Your task to perform on an android device: What's the weather going to be tomorrow? Image 0: 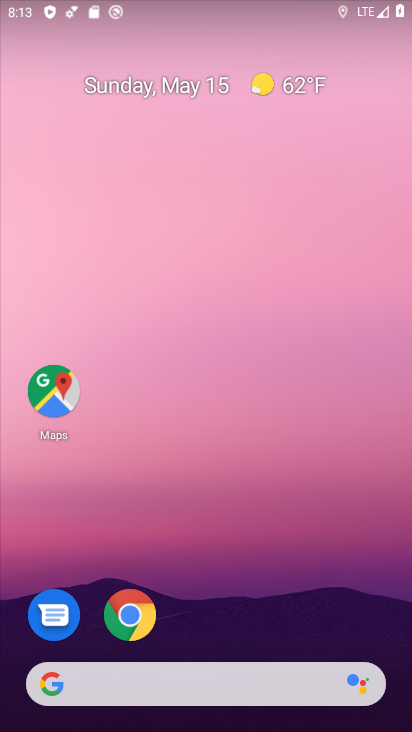
Step 0: click (217, 684)
Your task to perform on an android device: What's the weather going to be tomorrow? Image 1: 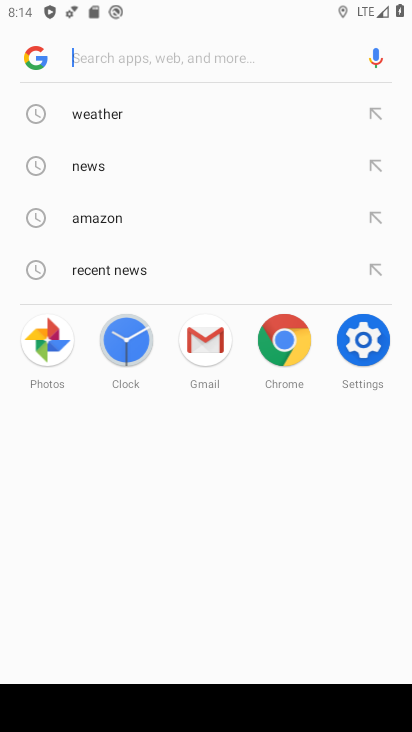
Step 1: type "What's the weather going to be tomorrow?"
Your task to perform on an android device: What's the weather going to be tomorrow? Image 2: 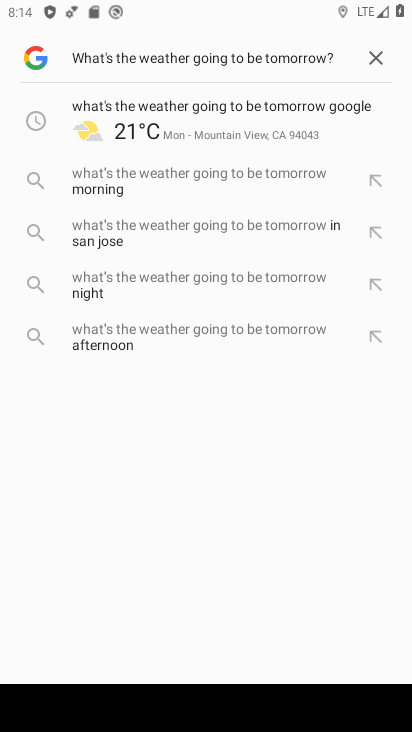
Step 2: click (278, 152)
Your task to perform on an android device: What's the weather going to be tomorrow? Image 3: 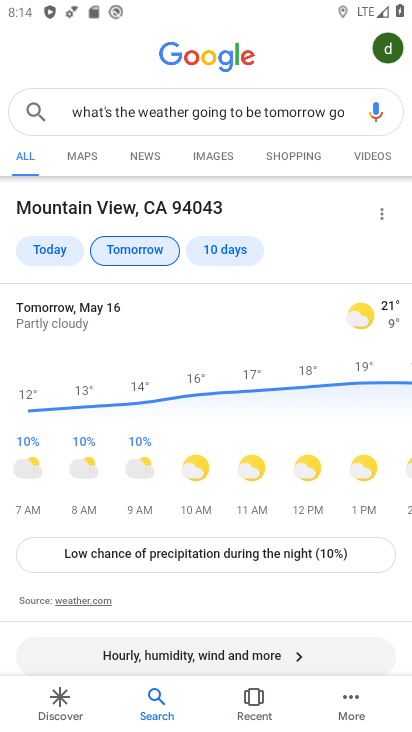
Step 3: task complete